Your task to perform on an android device: turn on location history Image 0: 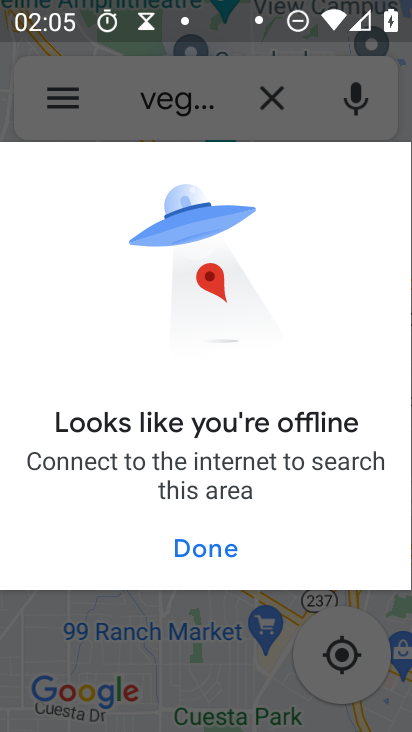
Step 0: press home button
Your task to perform on an android device: turn on location history Image 1: 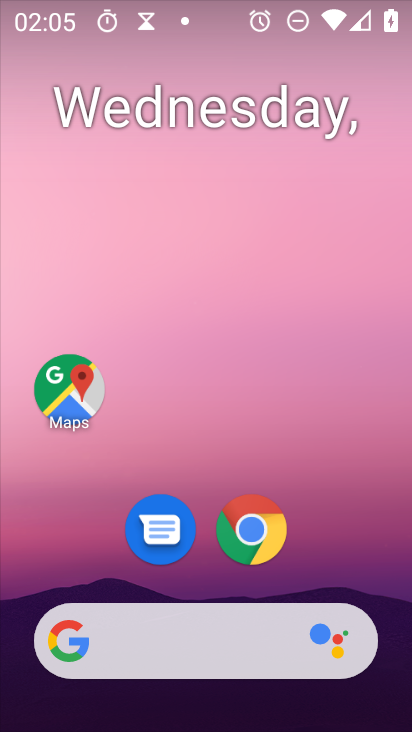
Step 1: drag from (167, 203) to (169, 102)
Your task to perform on an android device: turn on location history Image 2: 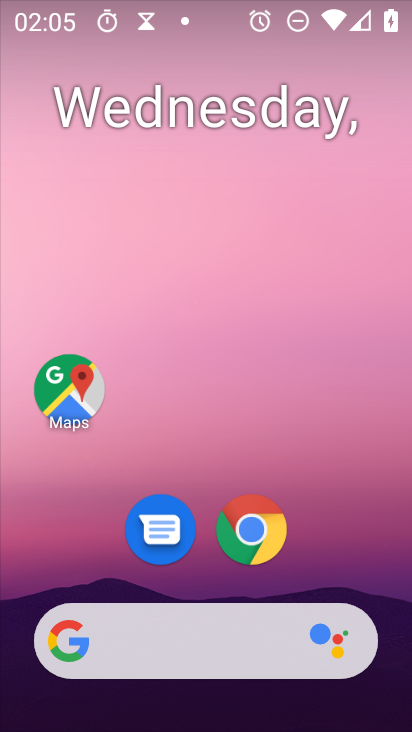
Step 2: drag from (233, 669) to (226, 19)
Your task to perform on an android device: turn on location history Image 3: 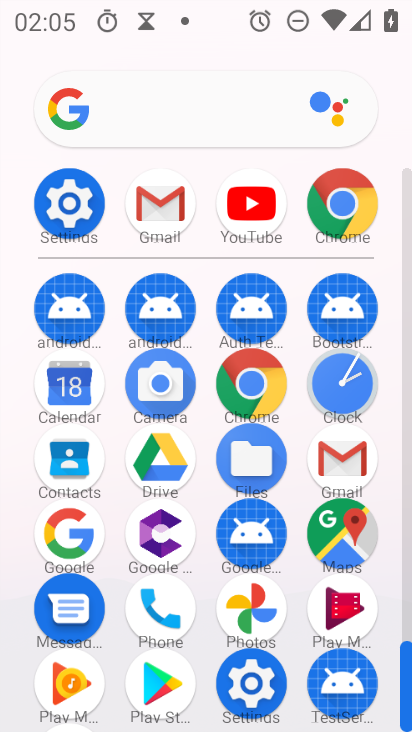
Step 3: click (71, 211)
Your task to perform on an android device: turn on location history Image 4: 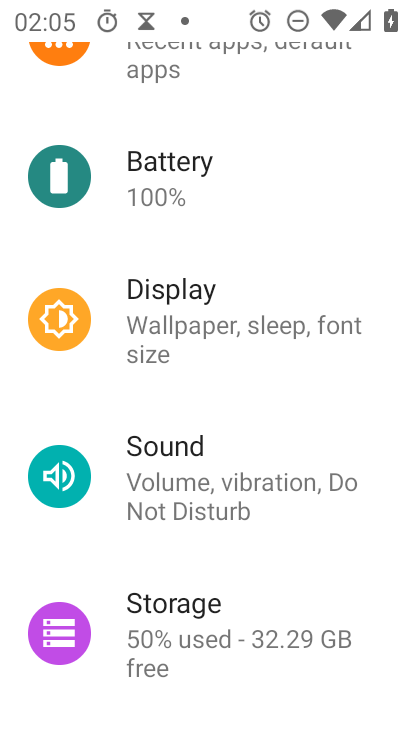
Step 4: drag from (223, 322) to (212, 162)
Your task to perform on an android device: turn on location history Image 5: 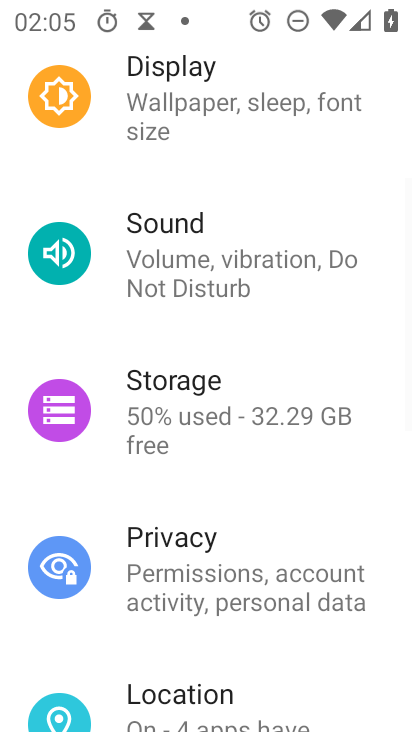
Step 5: drag from (229, 637) to (234, 216)
Your task to perform on an android device: turn on location history Image 6: 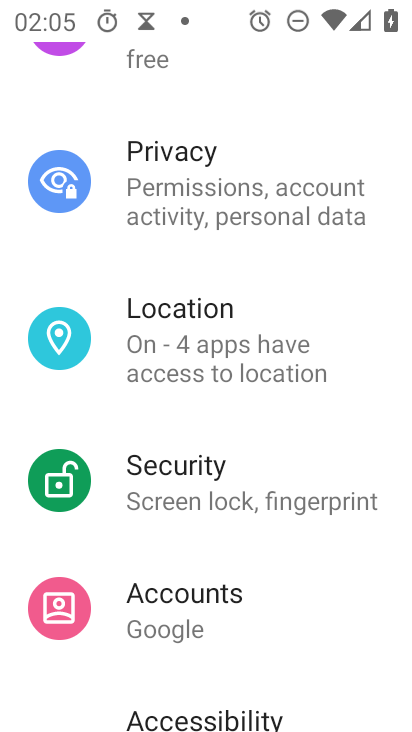
Step 6: click (249, 365)
Your task to perform on an android device: turn on location history Image 7: 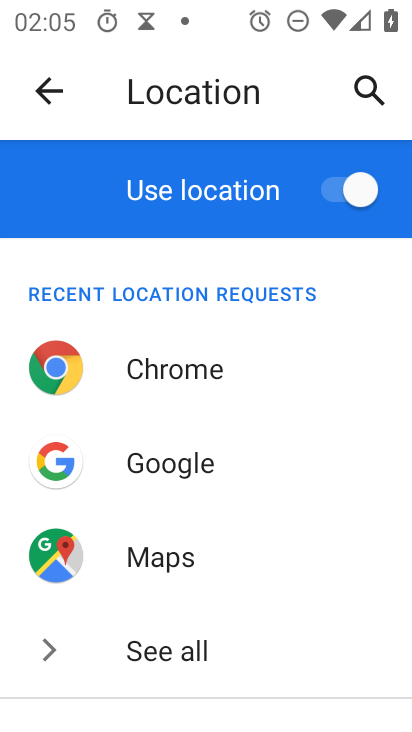
Step 7: drag from (255, 624) to (281, 48)
Your task to perform on an android device: turn on location history Image 8: 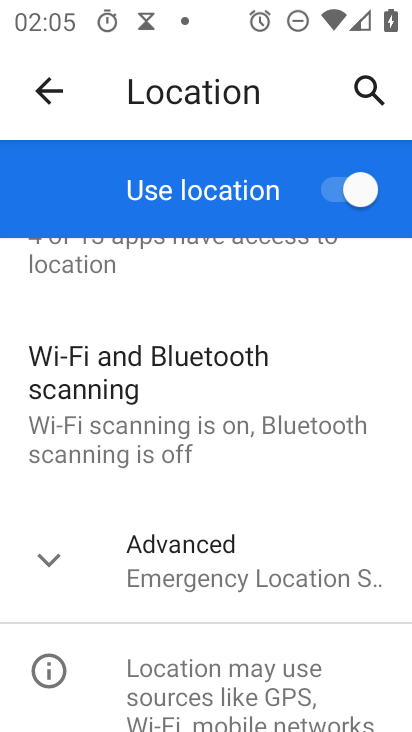
Step 8: drag from (222, 596) to (275, 258)
Your task to perform on an android device: turn on location history Image 9: 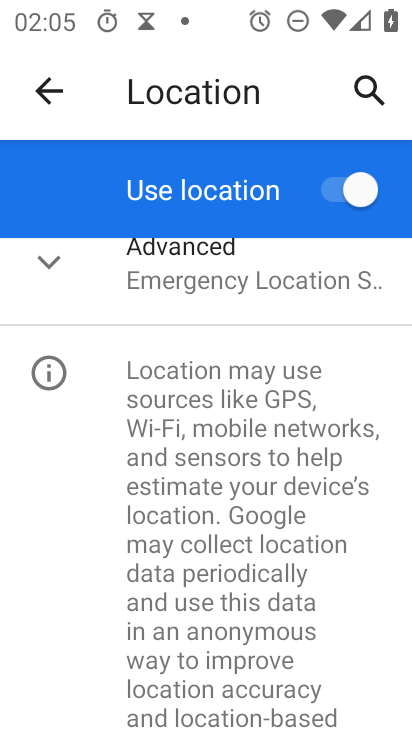
Step 9: click (218, 274)
Your task to perform on an android device: turn on location history Image 10: 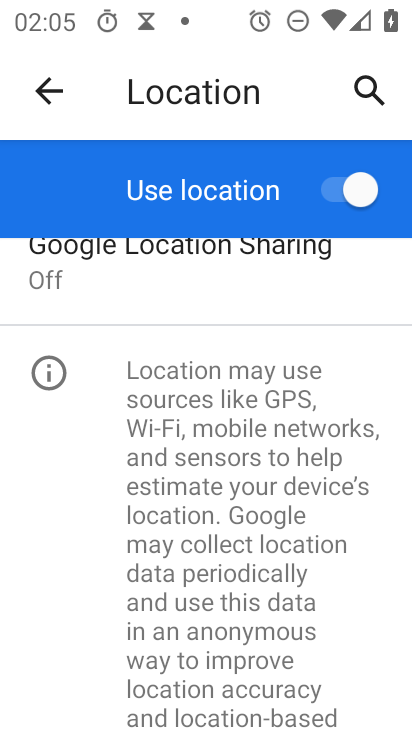
Step 10: drag from (249, 298) to (181, 489)
Your task to perform on an android device: turn on location history Image 11: 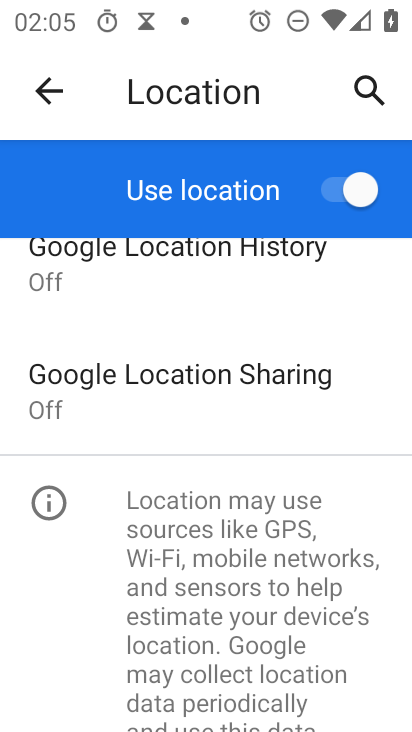
Step 11: click (158, 250)
Your task to perform on an android device: turn on location history Image 12: 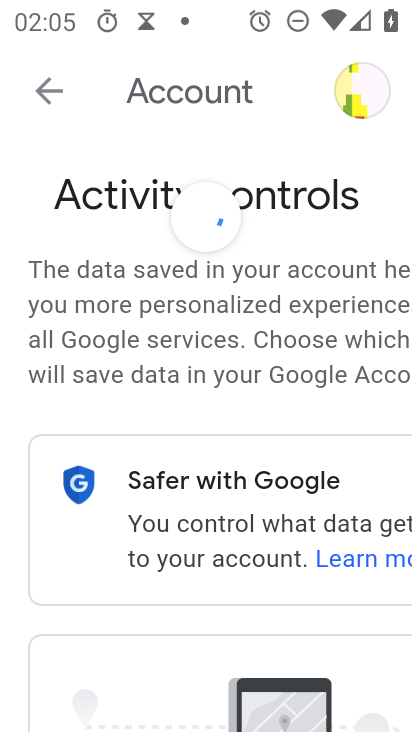
Step 12: drag from (278, 567) to (250, 48)
Your task to perform on an android device: turn on location history Image 13: 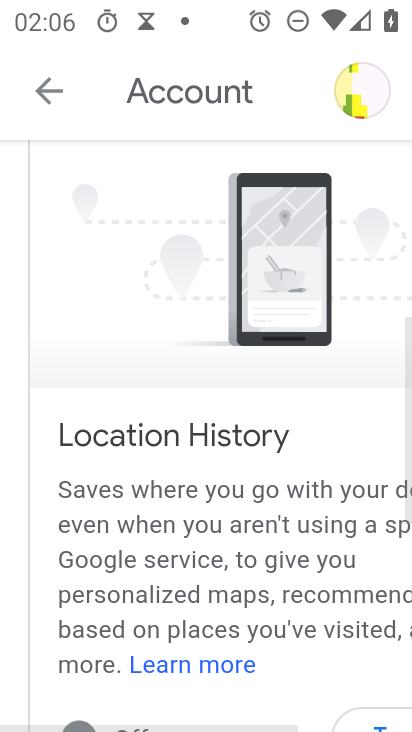
Step 13: drag from (324, 556) to (143, 232)
Your task to perform on an android device: turn on location history Image 14: 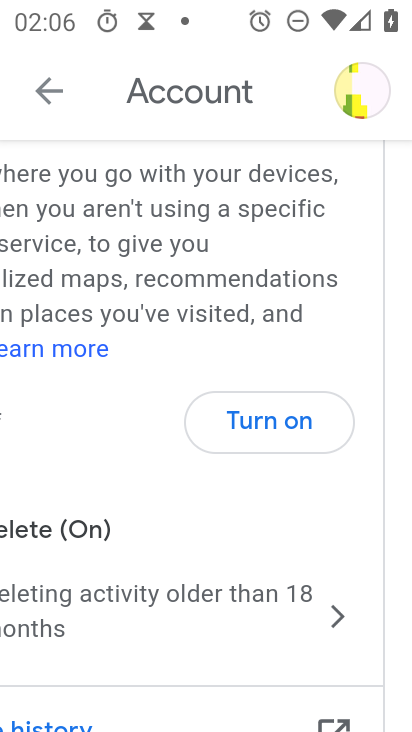
Step 14: click (301, 420)
Your task to perform on an android device: turn on location history Image 15: 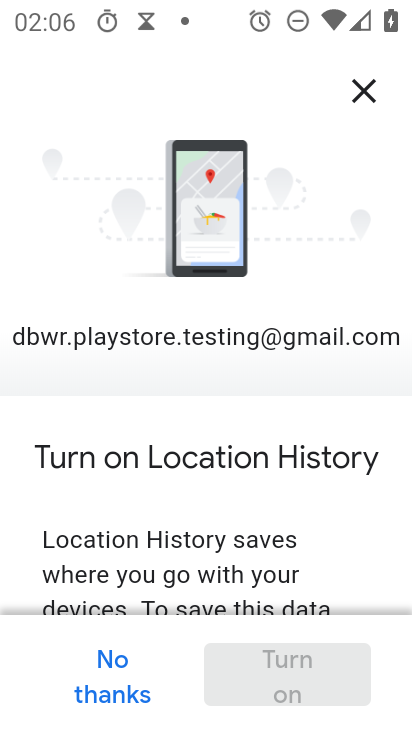
Step 15: drag from (281, 592) to (273, 68)
Your task to perform on an android device: turn on location history Image 16: 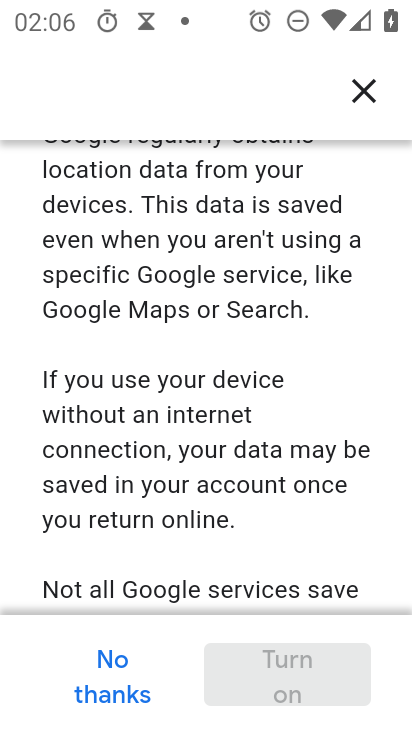
Step 16: drag from (296, 512) to (269, 110)
Your task to perform on an android device: turn on location history Image 17: 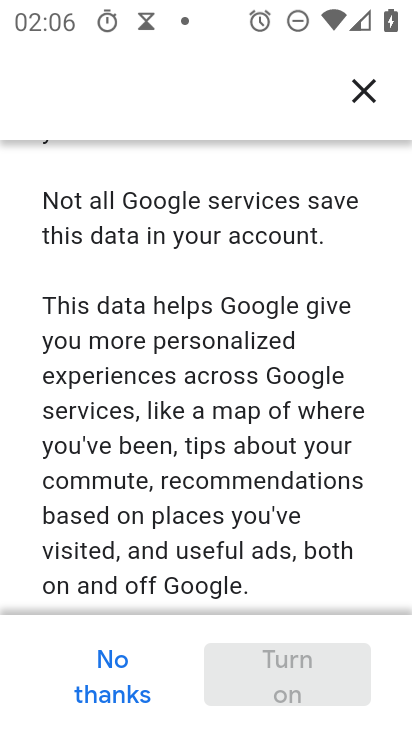
Step 17: drag from (277, 516) to (323, 68)
Your task to perform on an android device: turn on location history Image 18: 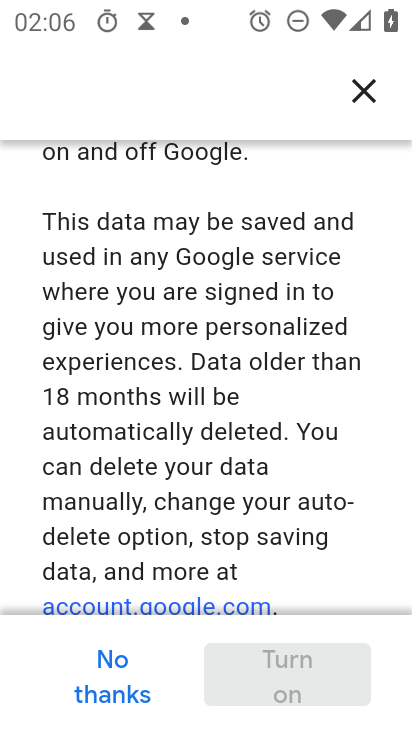
Step 18: drag from (344, 500) to (364, 78)
Your task to perform on an android device: turn on location history Image 19: 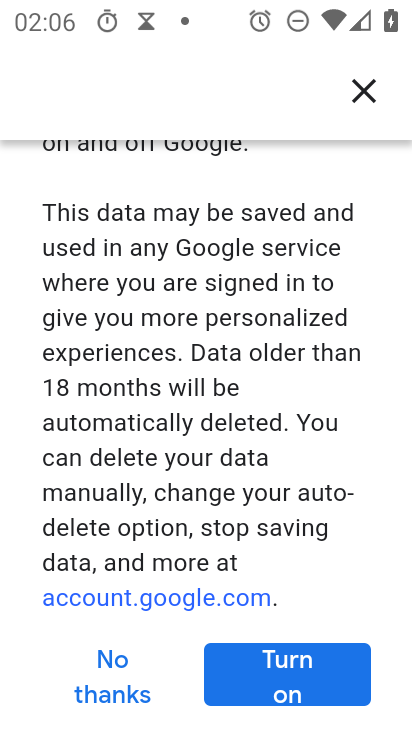
Step 19: click (296, 671)
Your task to perform on an android device: turn on location history Image 20: 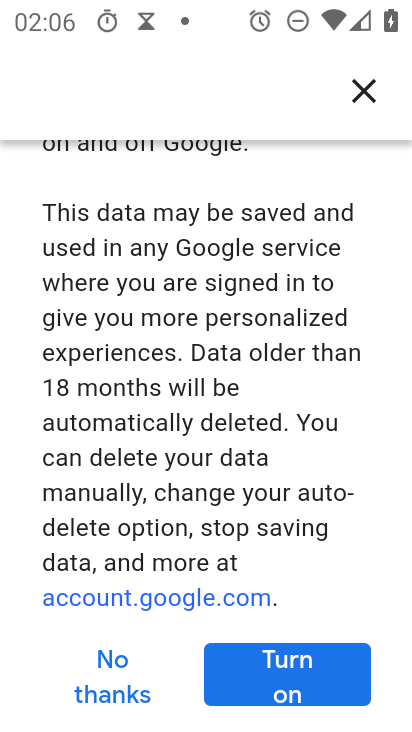
Step 20: click (296, 671)
Your task to perform on an android device: turn on location history Image 21: 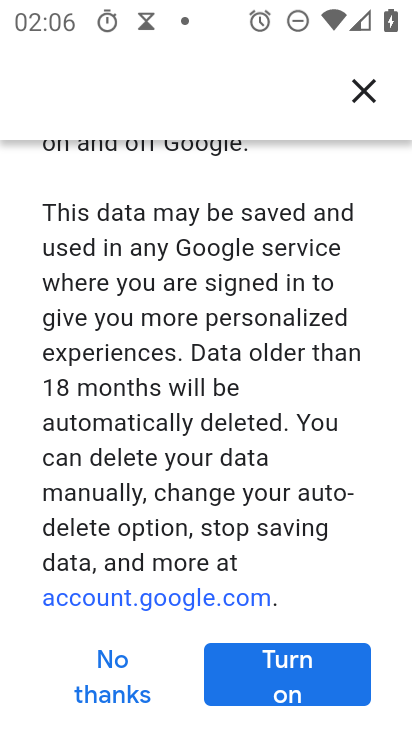
Step 21: click (298, 658)
Your task to perform on an android device: turn on location history Image 22: 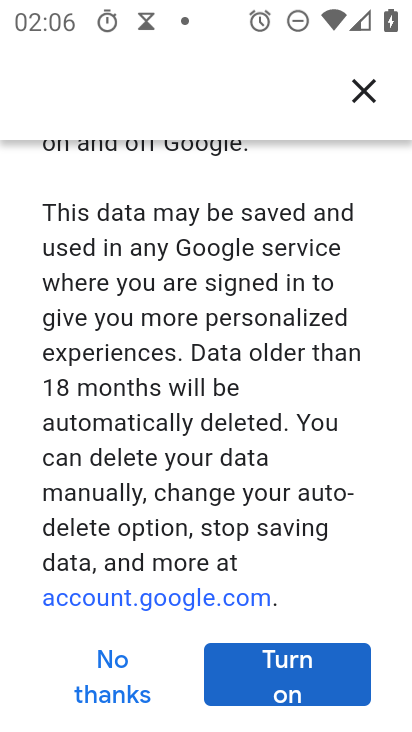
Step 22: click (298, 658)
Your task to perform on an android device: turn on location history Image 23: 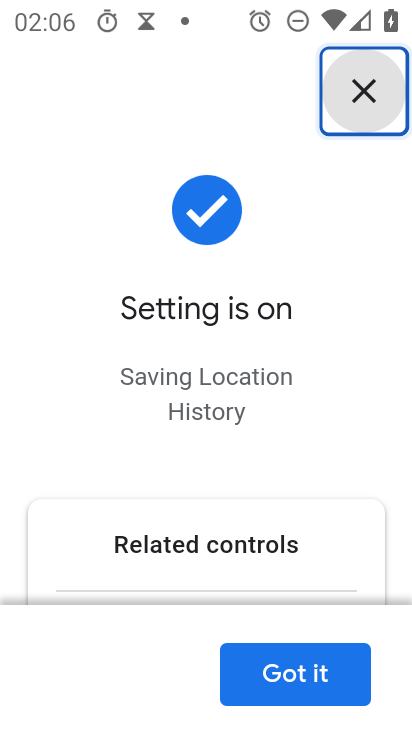
Step 23: task complete